Your task to perform on an android device: delete a single message in the gmail app Image 0: 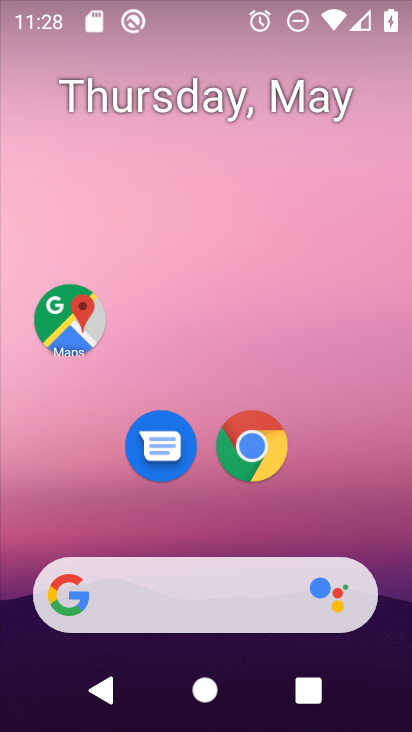
Step 0: drag from (198, 658) to (249, 151)
Your task to perform on an android device: delete a single message in the gmail app Image 1: 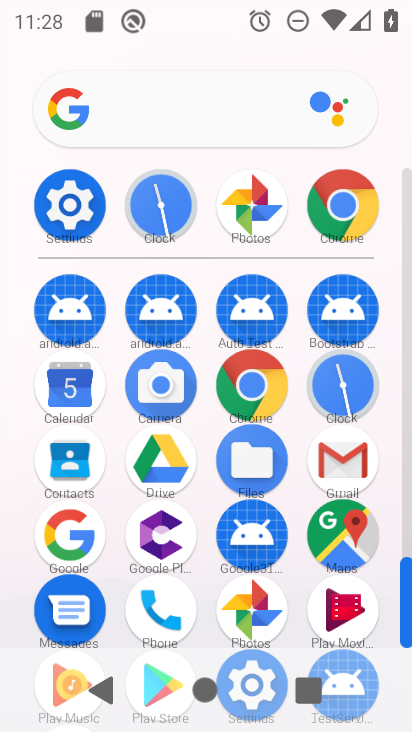
Step 1: click (337, 461)
Your task to perform on an android device: delete a single message in the gmail app Image 2: 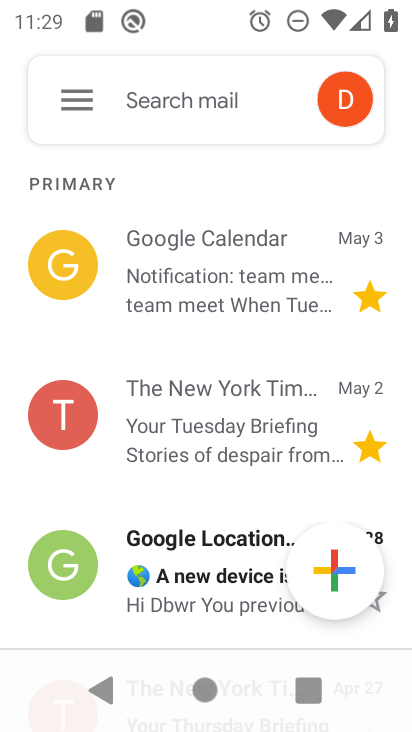
Step 2: click (195, 292)
Your task to perform on an android device: delete a single message in the gmail app Image 3: 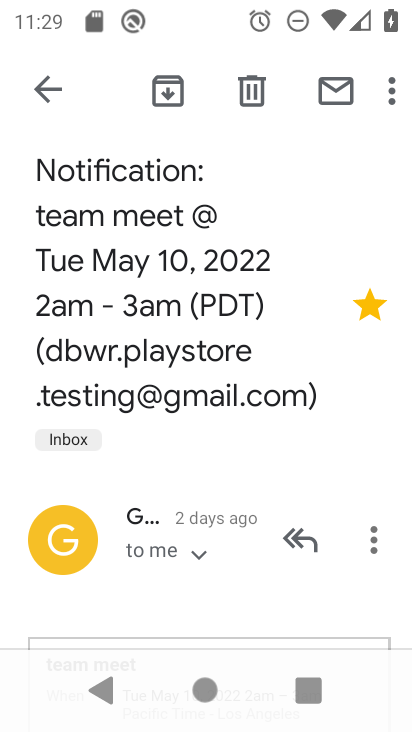
Step 3: click (250, 88)
Your task to perform on an android device: delete a single message in the gmail app Image 4: 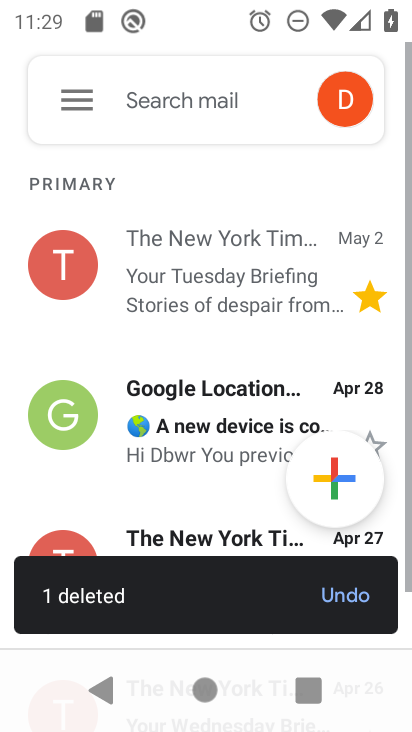
Step 4: task complete